Your task to perform on an android device: Go to Amazon Image 0: 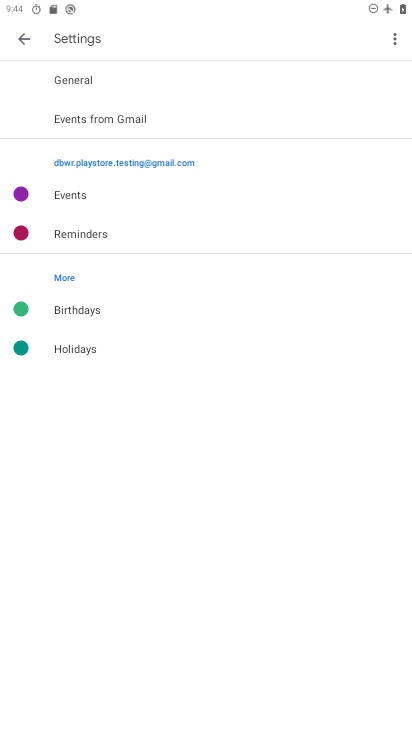
Step 0: press home button
Your task to perform on an android device: Go to Amazon Image 1: 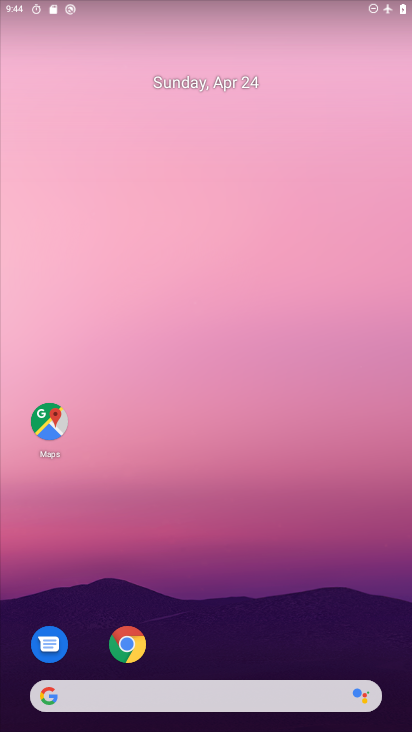
Step 1: drag from (212, 666) to (230, 35)
Your task to perform on an android device: Go to Amazon Image 2: 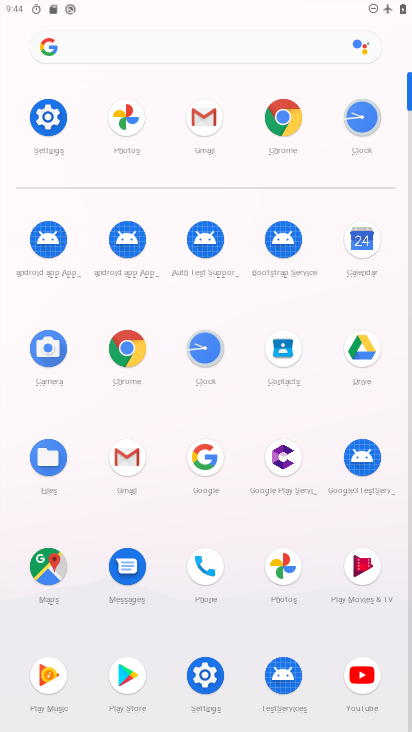
Step 2: click (129, 365)
Your task to perform on an android device: Go to Amazon Image 3: 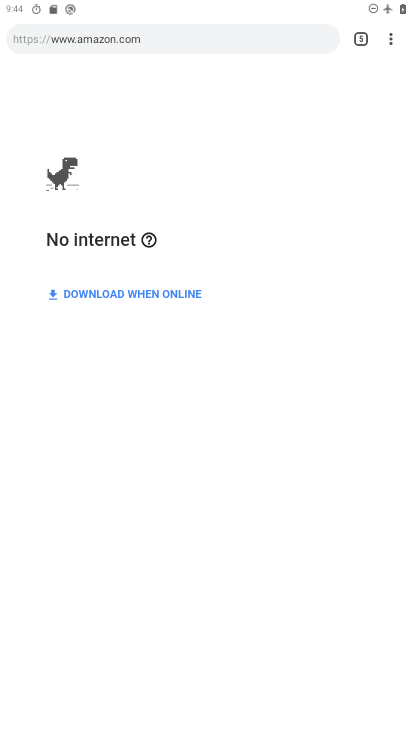
Step 3: click (352, 39)
Your task to perform on an android device: Go to Amazon Image 4: 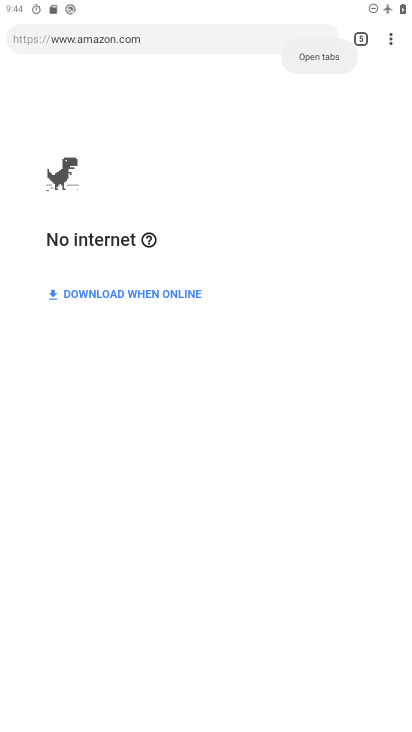
Step 4: click (352, 29)
Your task to perform on an android device: Go to Amazon Image 5: 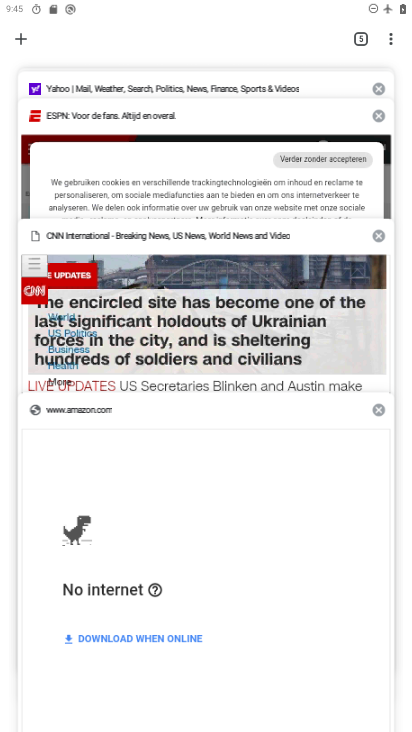
Step 5: click (15, 38)
Your task to perform on an android device: Go to Amazon Image 6: 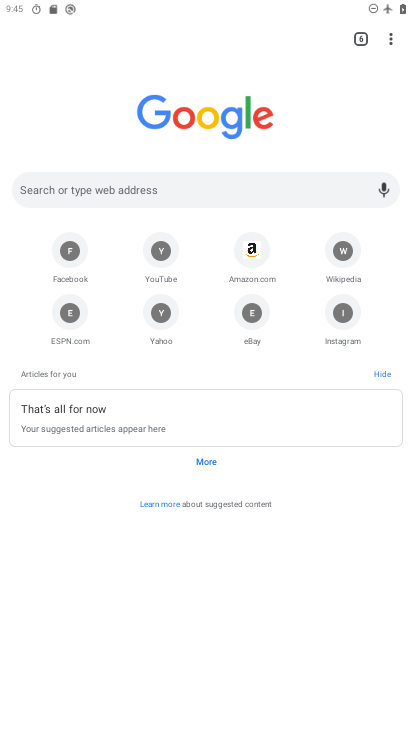
Step 6: click (253, 247)
Your task to perform on an android device: Go to Amazon Image 7: 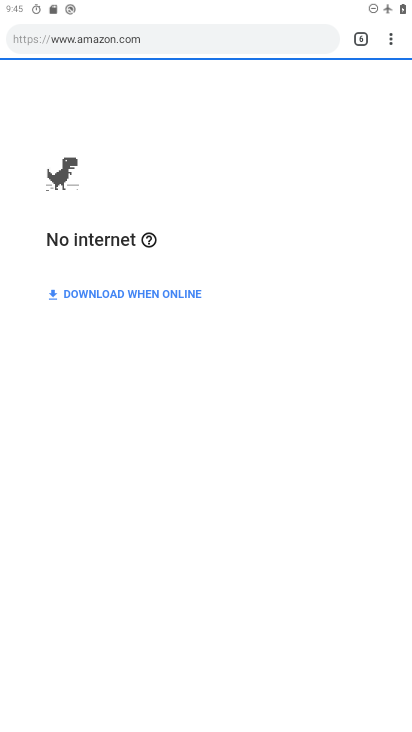
Step 7: task complete